Your task to perform on an android device: allow notifications from all sites in the chrome app Image 0: 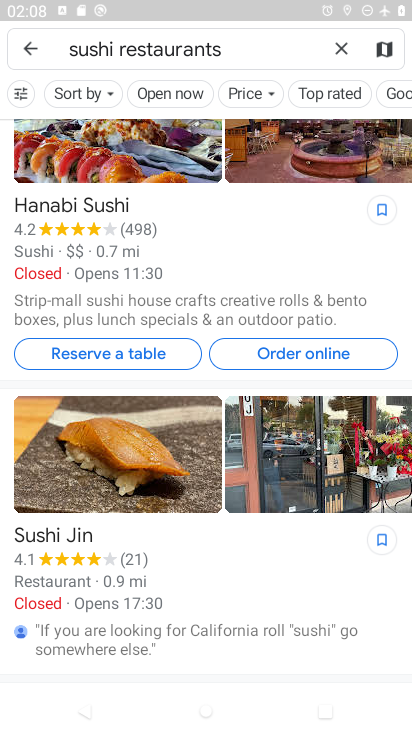
Step 0: press home button
Your task to perform on an android device: allow notifications from all sites in the chrome app Image 1: 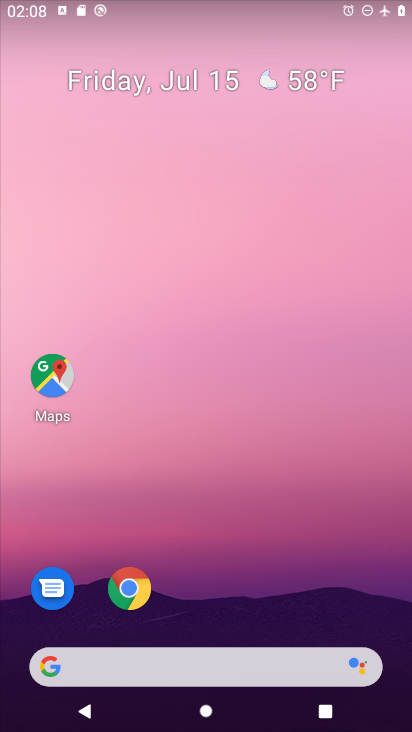
Step 1: click (128, 590)
Your task to perform on an android device: allow notifications from all sites in the chrome app Image 2: 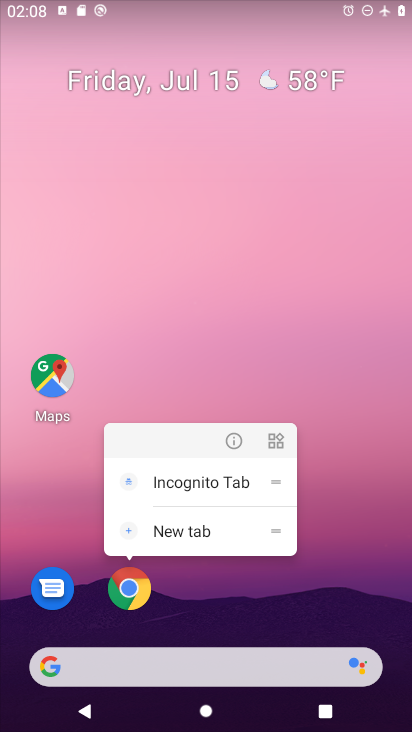
Step 2: click (128, 590)
Your task to perform on an android device: allow notifications from all sites in the chrome app Image 3: 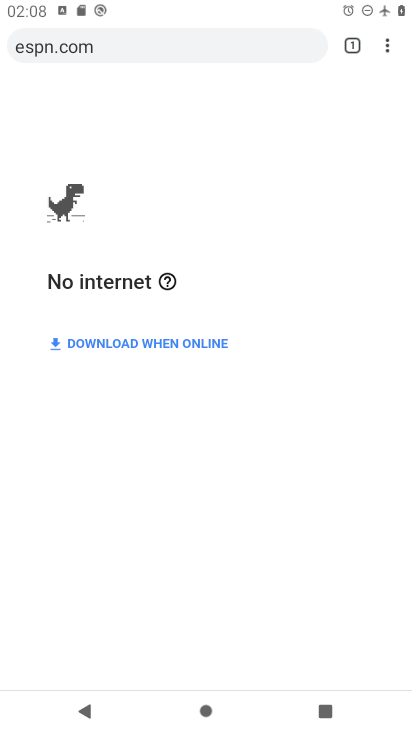
Step 3: click (386, 53)
Your task to perform on an android device: allow notifications from all sites in the chrome app Image 4: 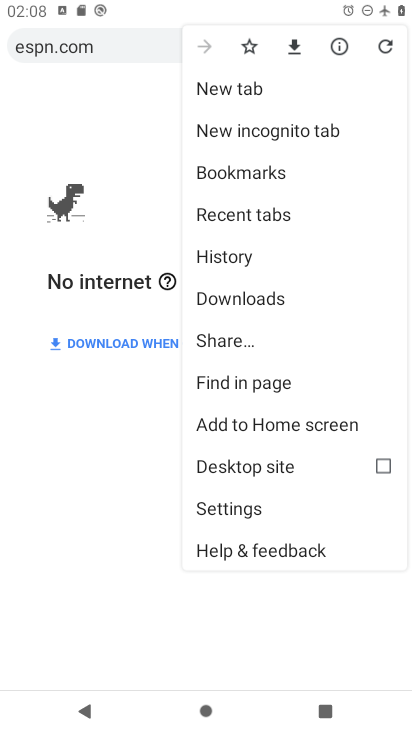
Step 4: click (246, 506)
Your task to perform on an android device: allow notifications from all sites in the chrome app Image 5: 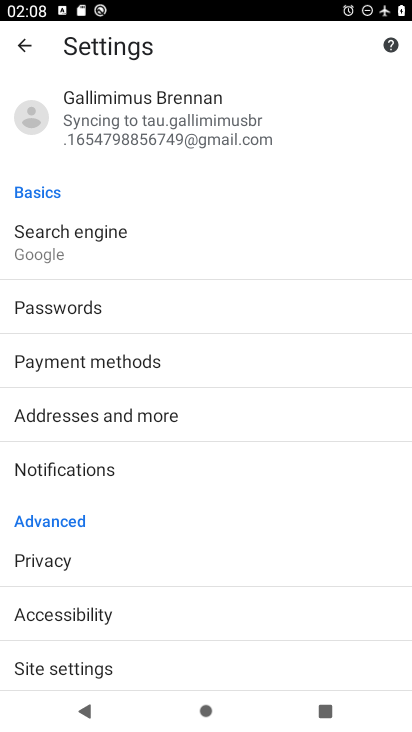
Step 5: drag from (174, 635) to (216, 326)
Your task to perform on an android device: allow notifications from all sites in the chrome app Image 6: 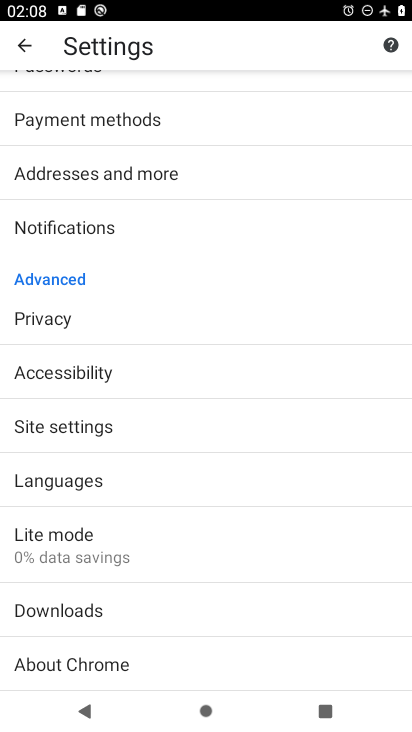
Step 6: click (79, 440)
Your task to perform on an android device: allow notifications from all sites in the chrome app Image 7: 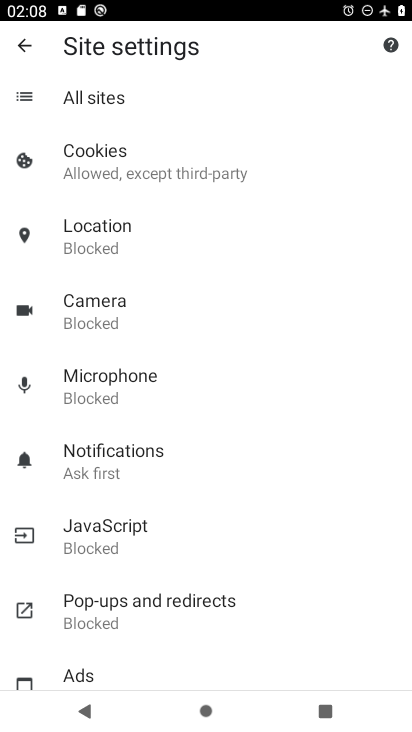
Step 7: click (102, 445)
Your task to perform on an android device: allow notifications from all sites in the chrome app Image 8: 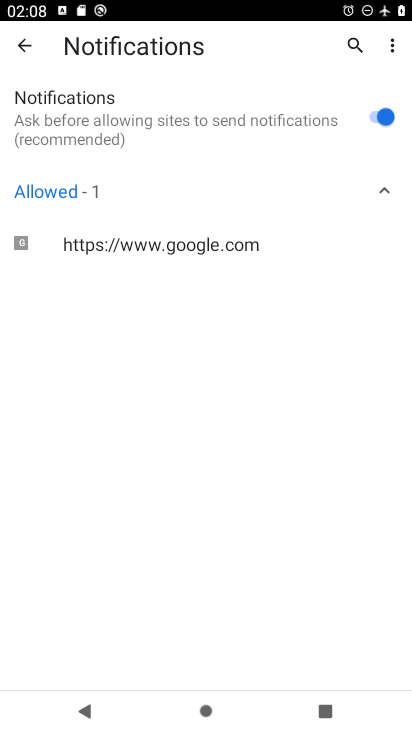
Step 8: task complete